Your task to perform on an android device: Go to Amazon Image 0: 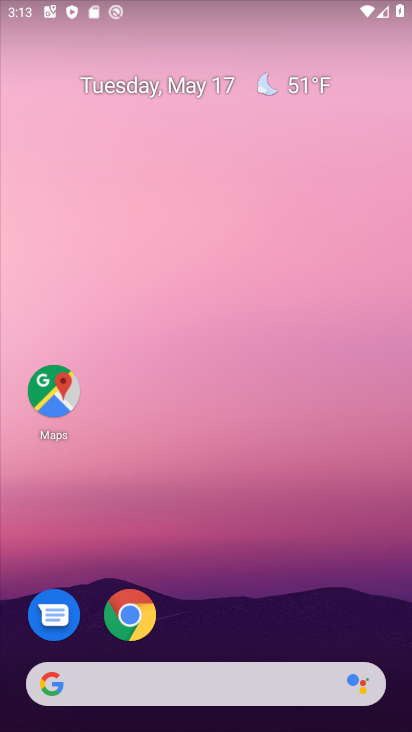
Step 0: click (133, 615)
Your task to perform on an android device: Go to Amazon Image 1: 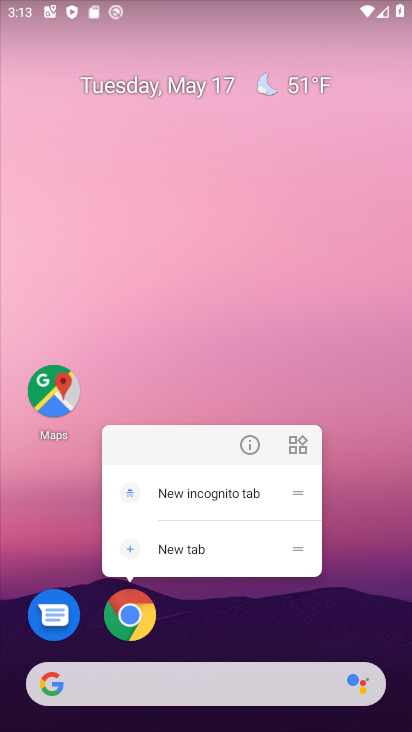
Step 1: click (128, 605)
Your task to perform on an android device: Go to Amazon Image 2: 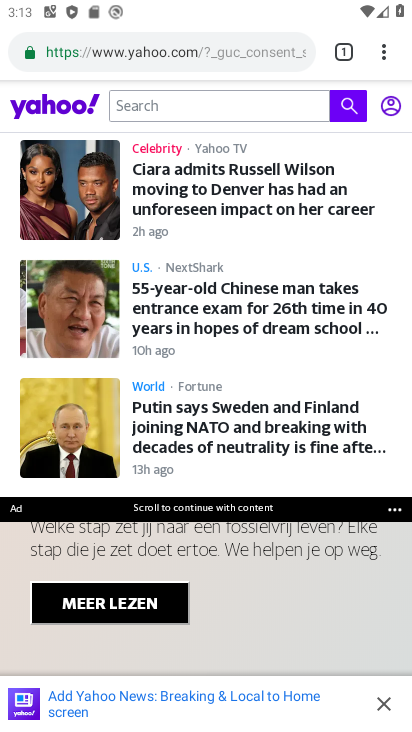
Step 2: click (338, 44)
Your task to perform on an android device: Go to Amazon Image 3: 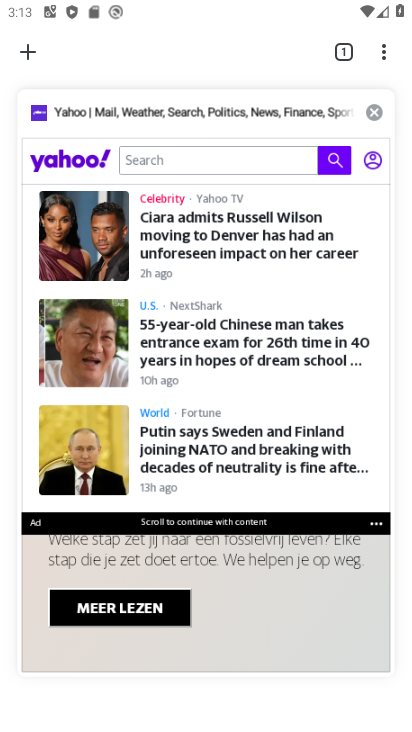
Step 3: click (373, 113)
Your task to perform on an android device: Go to Amazon Image 4: 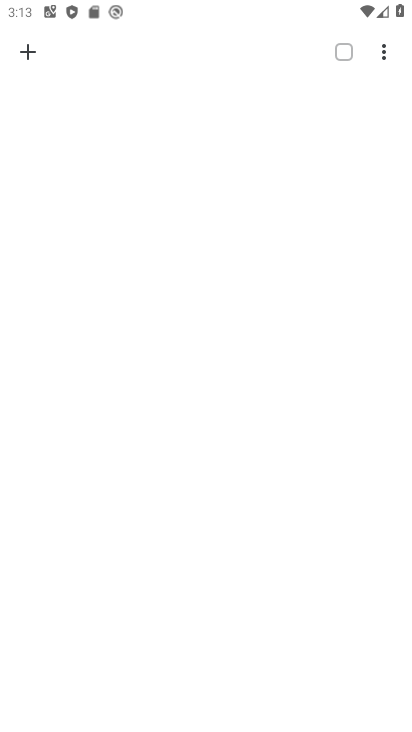
Step 4: click (34, 54)
Your task to perform on an android device: Go to Amazon Image 5: 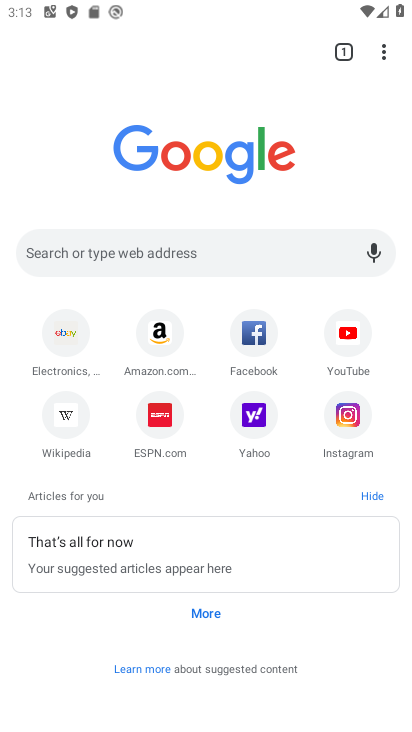
Step 5: click (155, 325)
Your task to perform on an android device: Go to Amazon Image 6: 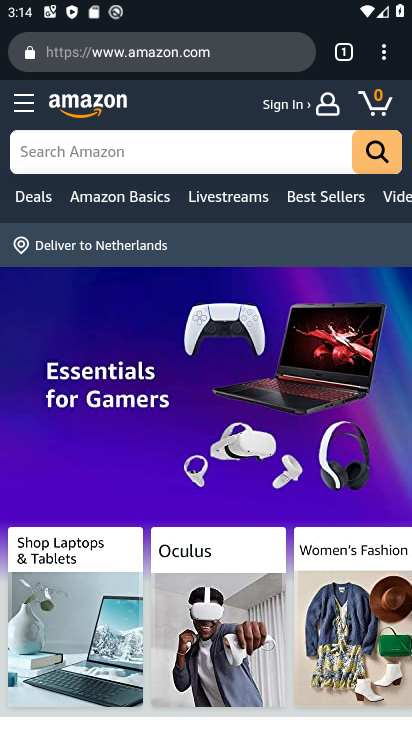
Step 6: task complete